Your task to perform on an android device: create a new album in the google photos Image 0: 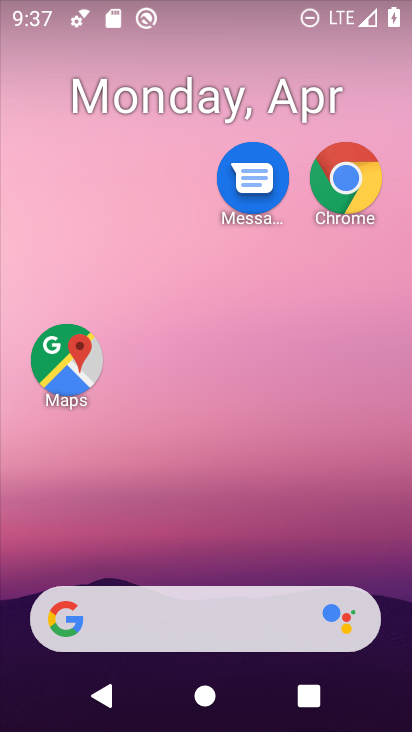
Step 0: drag from (267, 563) to (265, 136)
Your task to perform on an android device: create a new album in the google photos Image 1: 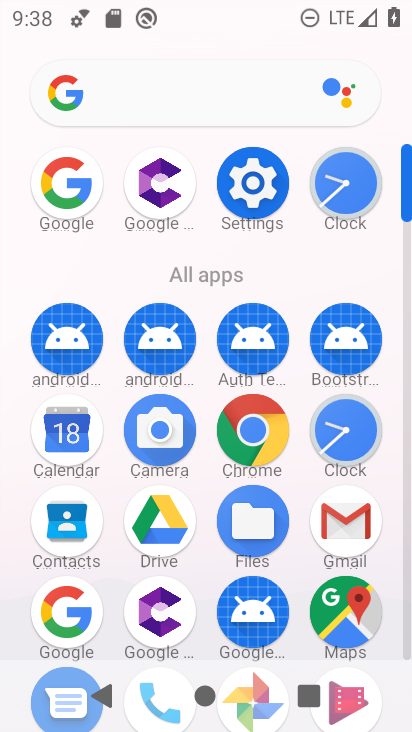
Step 1: drag from (254, 510) to (262, 301)
Your task to perform on an android device: create a new album in the google photos Image 2: 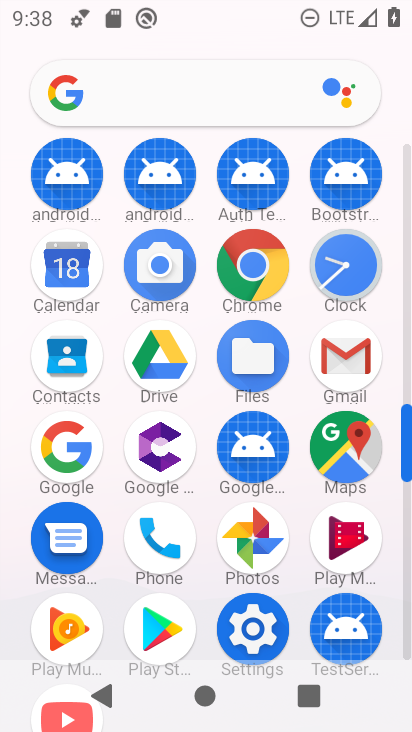
Step 2: click (257, 546)
Your task to perform on an android device: create a new album in the google photos Image 3: 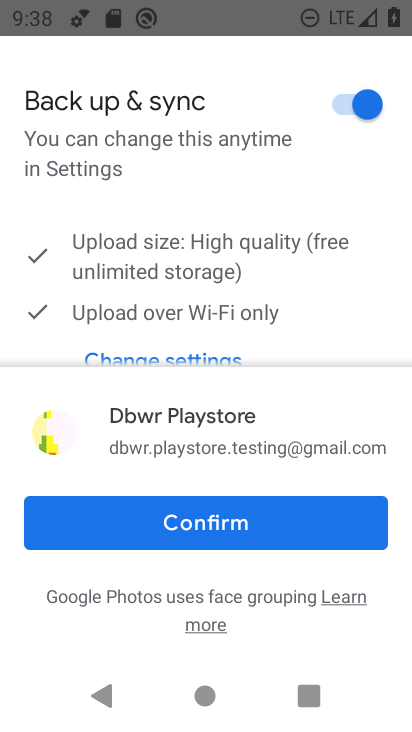
Step 3: click (257, 546)
Your task to perform on an android device: create a new album in the google photos Image 4: 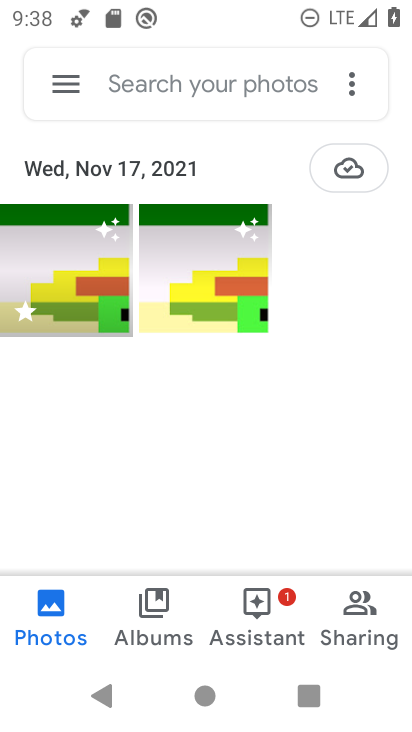
Step 4: click (152, 629)
Your task to perform on an android device: create a new album in the google photos Image 5: 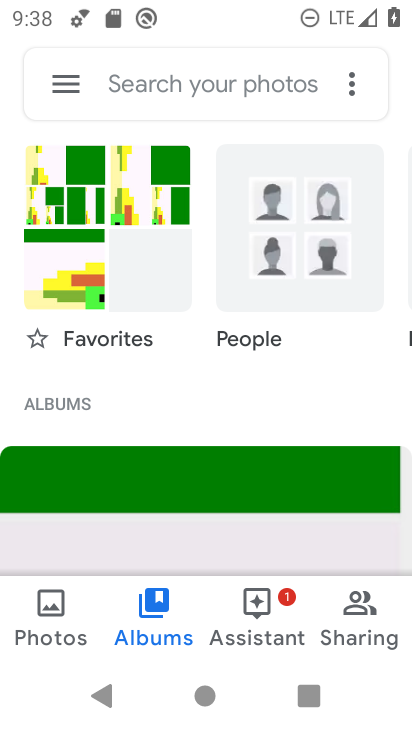
Step 5: drag from (211, 434) to (210, 214)
Your task to perform on an android device: create a new album in the google photos Image 6: 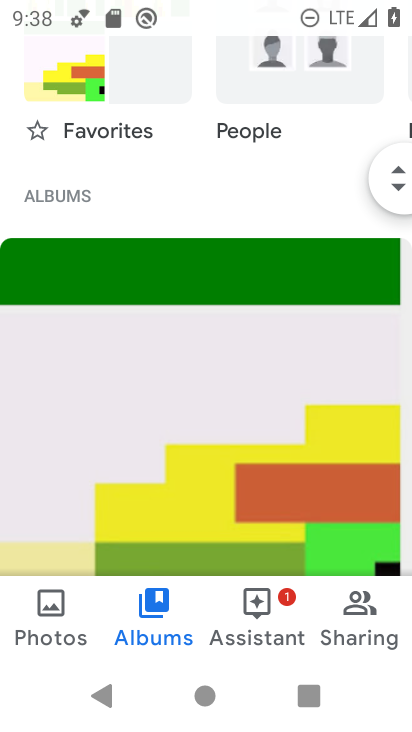
Step 6: drag from (317, 496) to (314, 280)
Your task to perform on an android device: create a new album in the google photos Image 7: 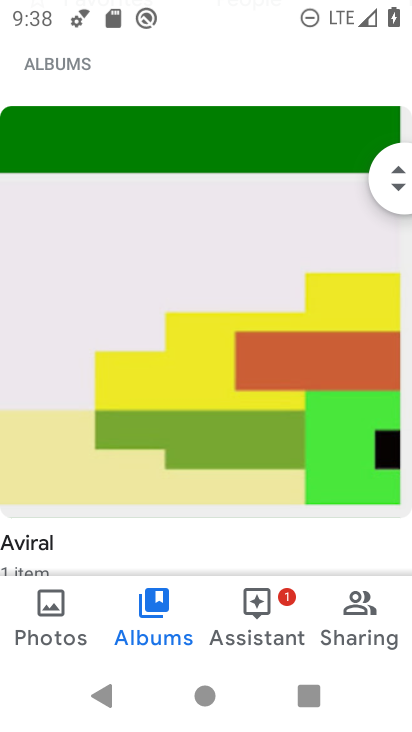
Step 7: drag from (269, 514) to (261, 339)
Your task to perform on an android device: create a new album in the google photos Image 8: 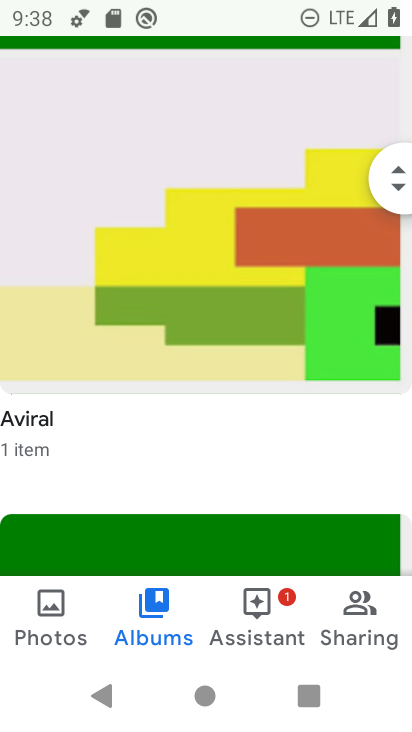
Step 8: drag from (259, 357) to (265, 300)
Your task to perform on an android device: create a new album in the google photos Image 9: 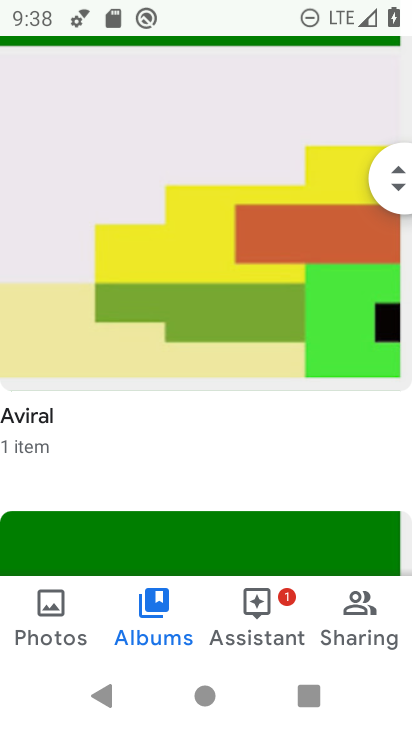
Step 9: drag from (236, 510) to (287, 84)
Your task to perform on an android device: create a new album in the google photos Image 10: 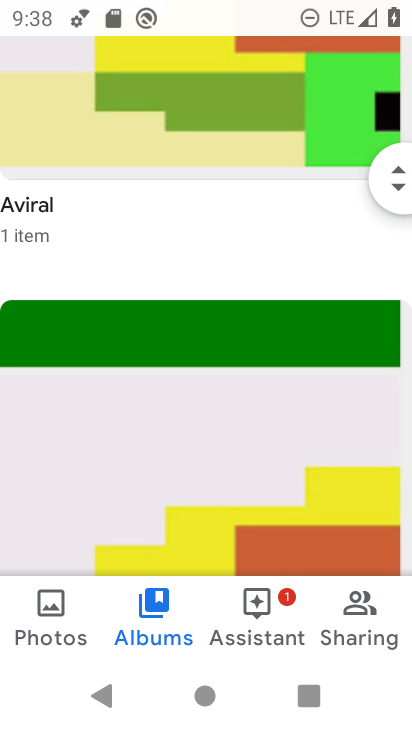
Step 10: drag from (235, 457) to (197, 64)
Your task to perform on an android device: create a new album in the google photos Image 11: 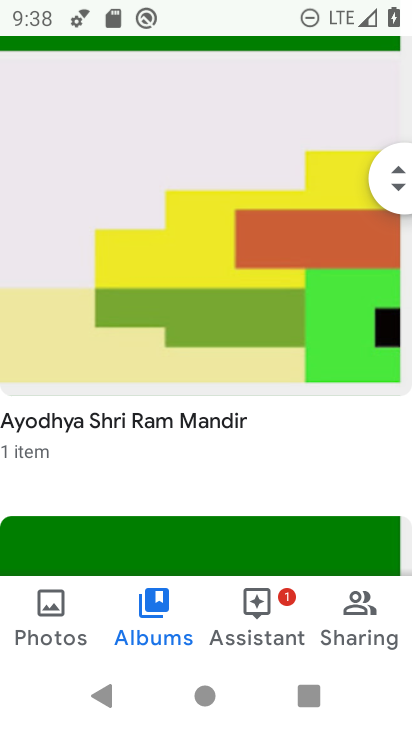
Step 11: drag from (289, 465) to (291, 132)
Your task to perform on an android device: create a new album in the google photos Image 12: 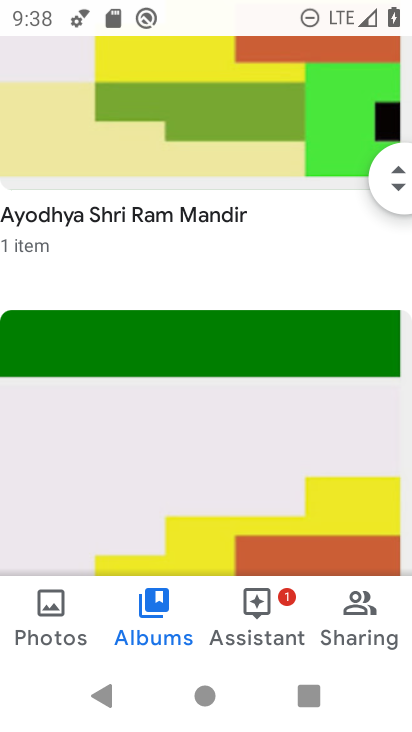
Step 12: click (291, 132)
Your task to perform on an android device: create a new album in the google photos Image 13: 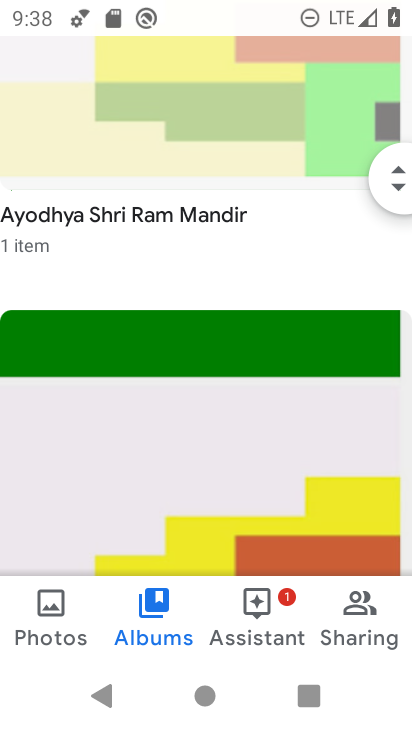
Step 13: drag from (278, 517) to (288, 268)
Your task to perform on an android device: create a new album in the google photos Image 14: 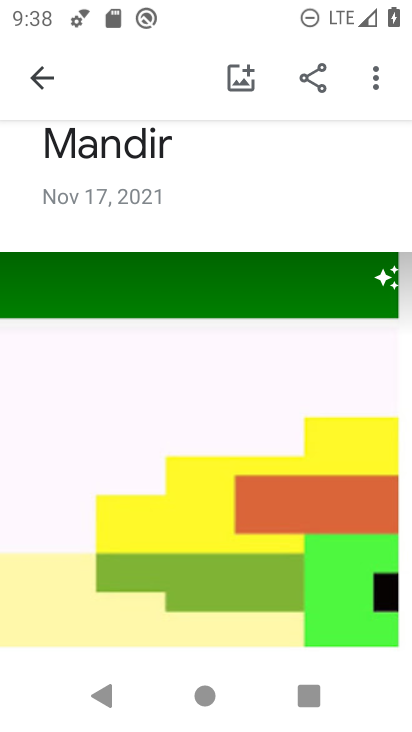
Step 14: click (53, 81)
Your task to perform on an android device: create a new album in the google photos Image 15: 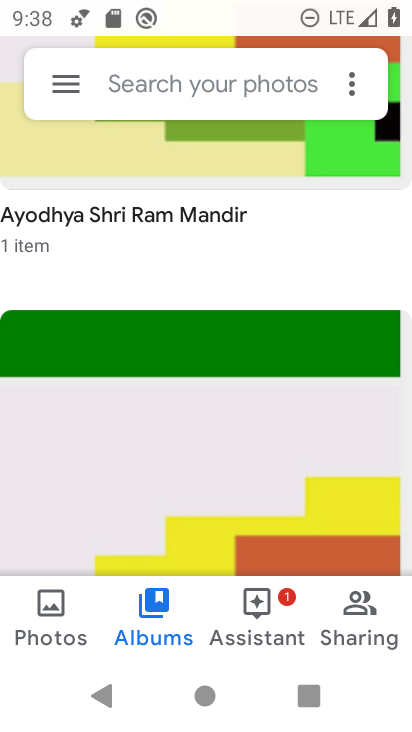
Step 15: drag from (255, 514) to (155, 222)
Your task to perform on an android device: create a new album in the google photos Image 16: 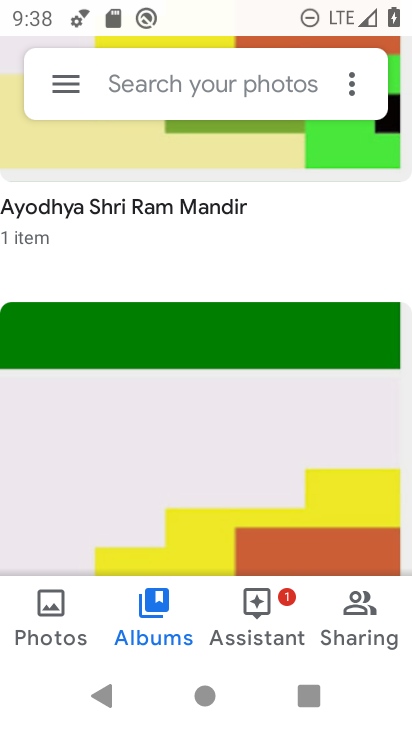
Step 16: drag from (267, 489) to (248, 151)
Your task to perform on an android device: create a new album in the google photos Image 17: 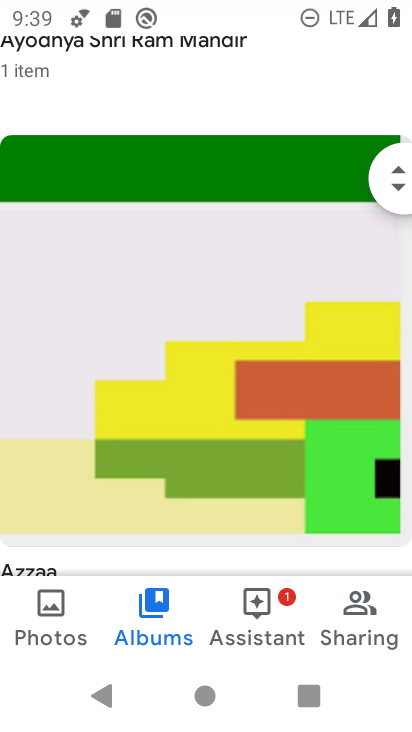
Step 17: drag from (250, 500) to (209, 238)
Your task to perform on an android device: create a new album in the google photos Image 18: 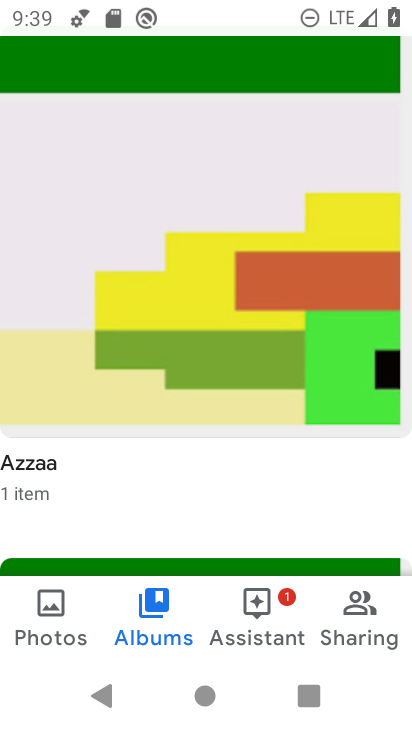
Step 18: drag from (214, 546) to (290, 118)
Your task to perform on an android device: create a new album in the google photos Image 19: 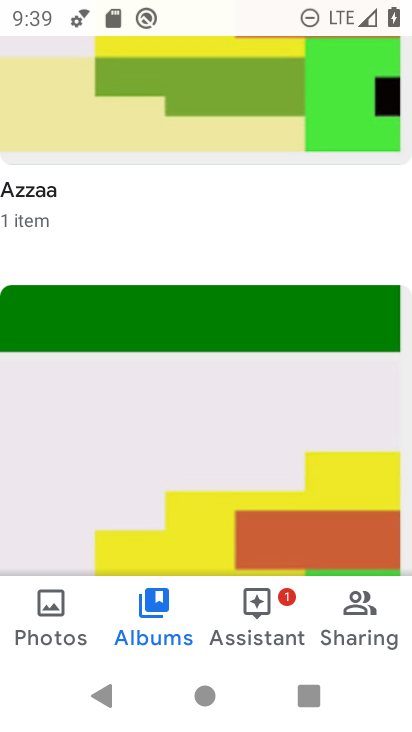
Step 19: drag from (226, 519) to (287, 131)
Your task to perform on an android device: create a new album in the google photos Image 20: 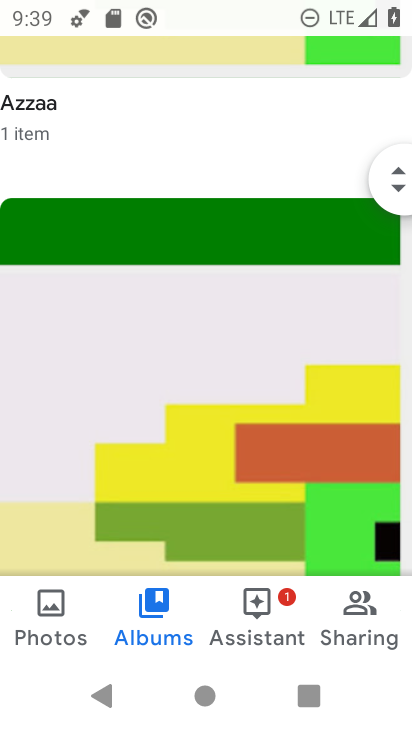
Step 20: drag from (231, 507) to (297, 64)
Your task to perform on an android device: create a new album in the google photos Image 21: 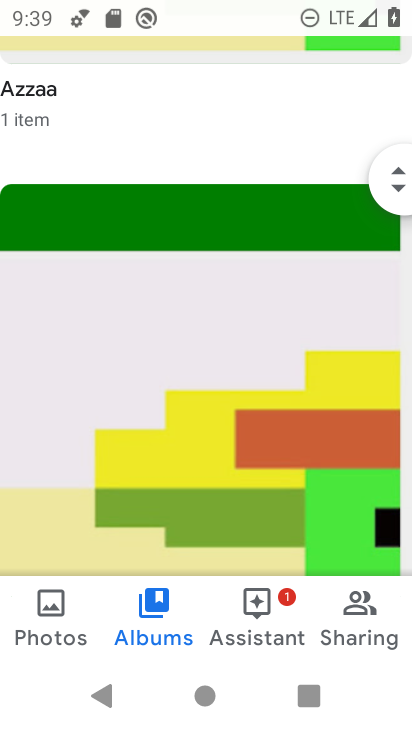
Step 21: drag from (248, 333) to (313, 0)
Your task to perform on an android device: create a new album in the google photos Image 22: 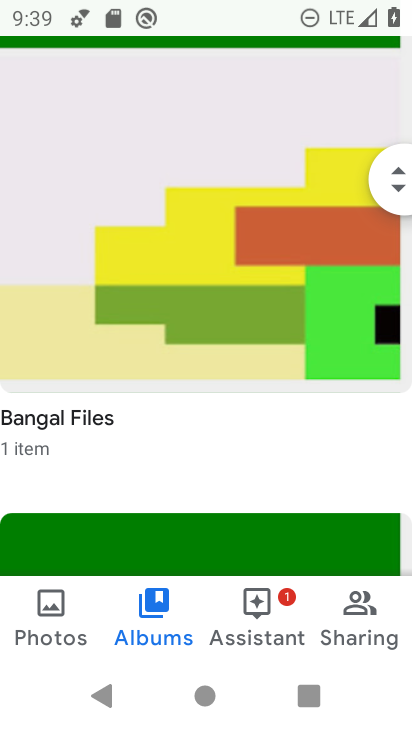
Step 22: drag from (292, 107) to (248, 578)
Your task to perform on an android device: create a new album in the google photos Image 23: 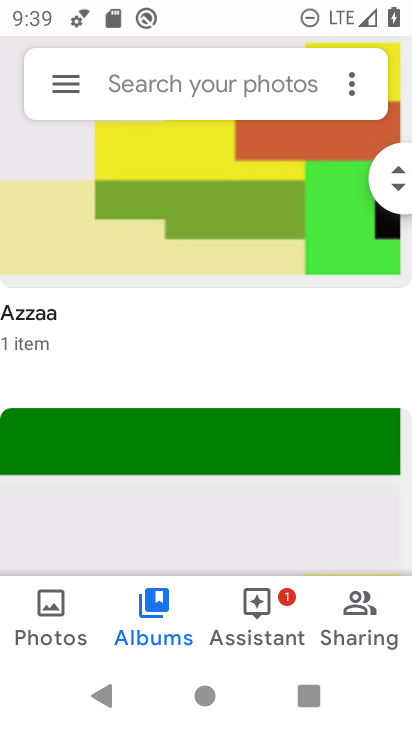
Step 23: click (395, 195)
Your task to perform on an android device: create a new album in the google photos Image 24: 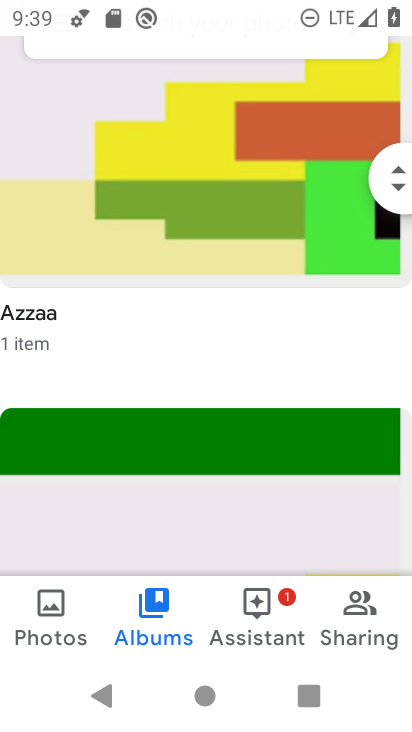
Step 24: task complete